Your task to perform on an android device: Show me productivity apps on the Play Store Image 0: 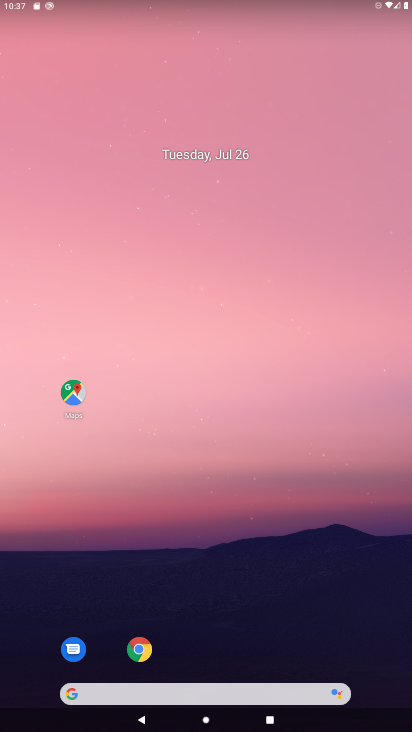
Step 0: drag from (225, 679) to (228, 65)
Your task to perform on an android device: Show me productivity apps on the Play Store Image 1: 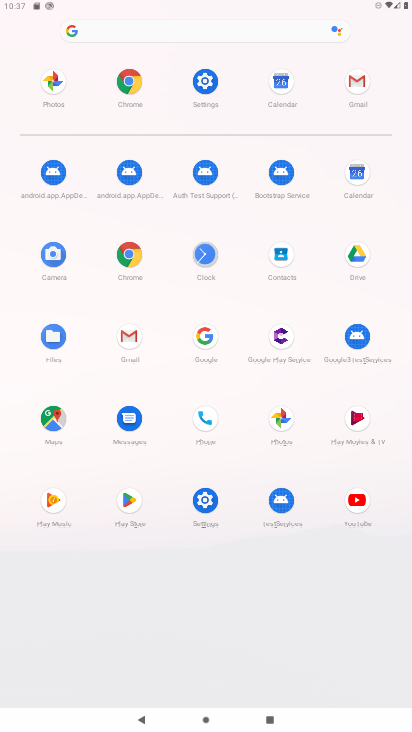
Step 1: click (133, 494)
Your task to perform on an android device: Show me productivity apps on the Play Store Image 2: 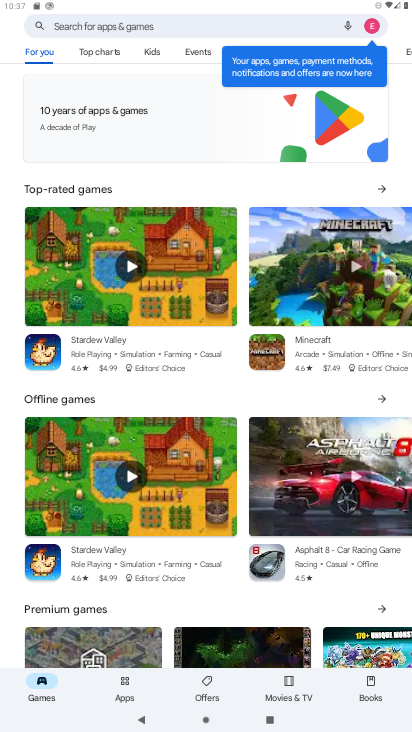
Step 2: click (127, 687)
Your task to perform on an android device: Show me productivity apps on the Play Store Image 3: 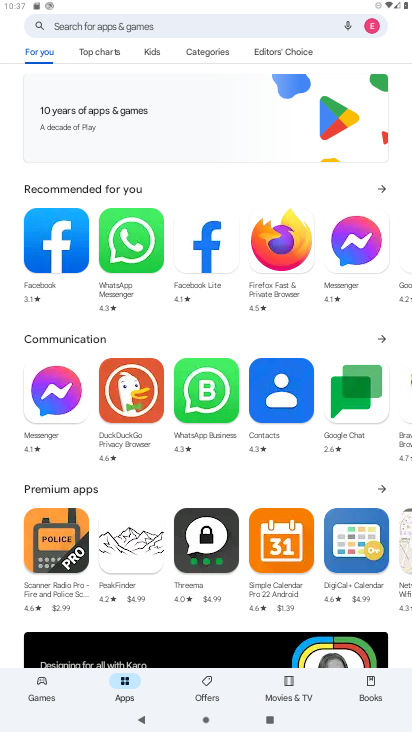
Step 3: task complete